Your task to perform on an android device: check the backup settings in the google photos Image 0: 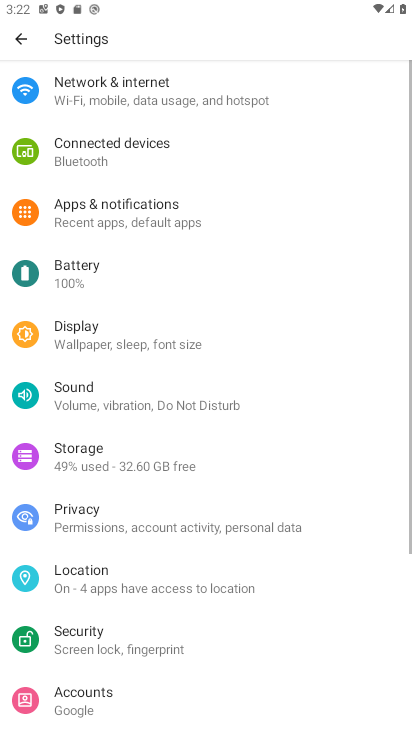
Step 0: press home button
Your task to perform on an android device: check the backup settings in the google photos Image 1: 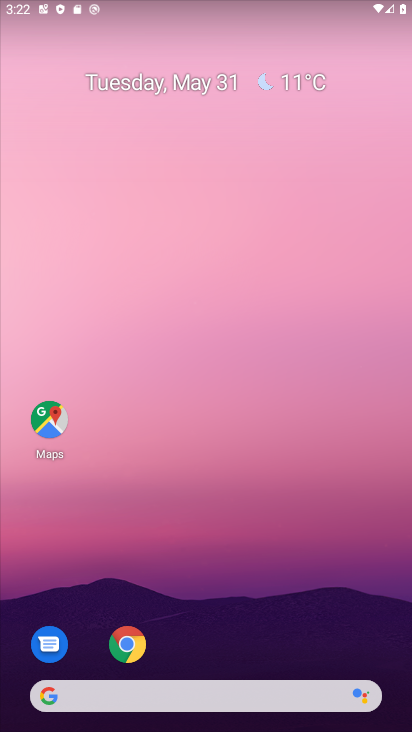
Step 1: drag from (200, 610) to (257, 179)
Your task to perform on an android device: check the backup settings in the google photos Image 2: 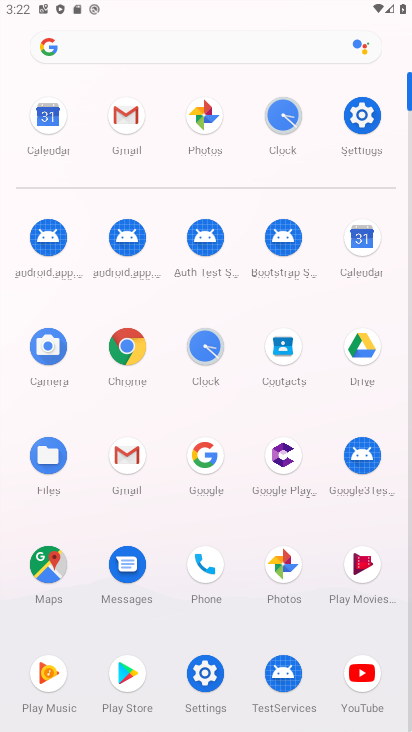
Step 2: click (286, 566)
Your task to perform on an android device: check the backup settings in the google photos Image 3: 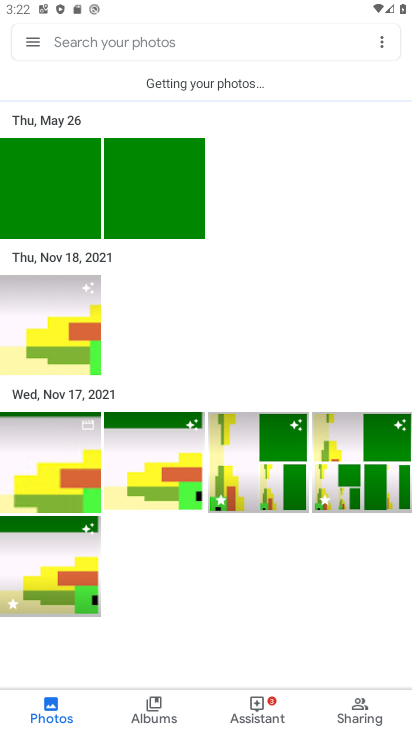
Step 3: click (33, 40)
Your task to perform on an android device: check the backup settings in the google photos Image 4: 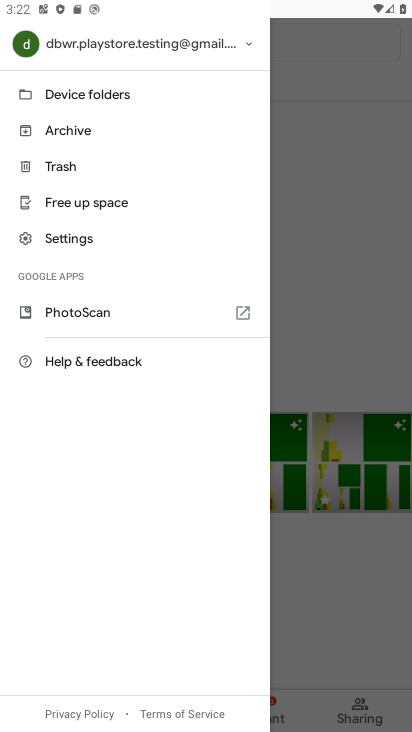
Step 4: click (119, 245)
Your task to perform on an android device: check the backup settings in the google photos Image 5: 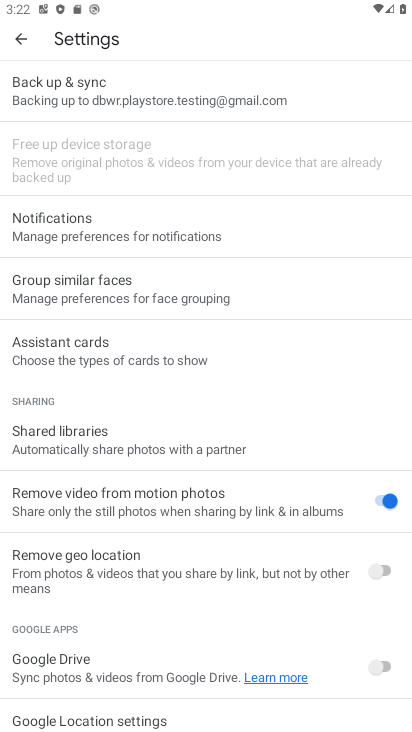
Step 5: click (172, 94)
Your task to perform on an android device: check the backup settings in the google photos Image 6: 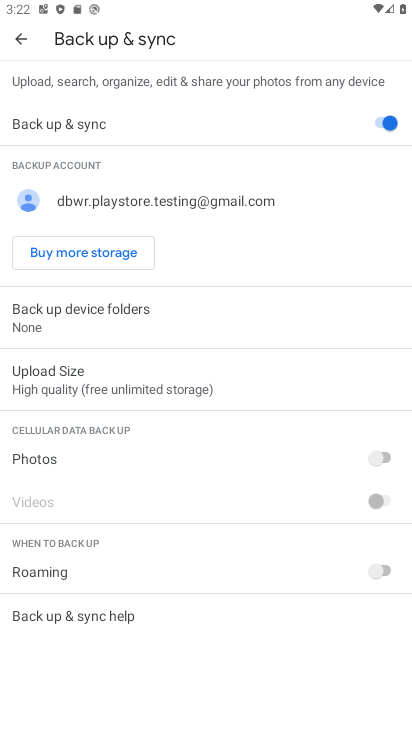
Step 6: click (387, 124)
Your task to perform on an android device: check the backup settings in the google photos Image 7: 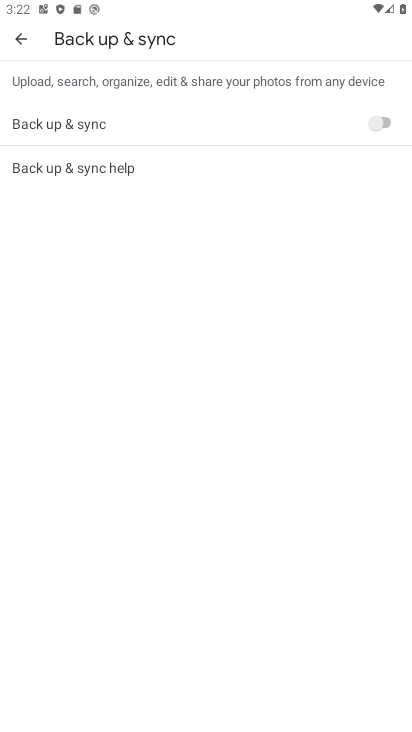
Step 7: task complete